Your task to perform on an android device: stop showing notifications on the lock screen Image 0: 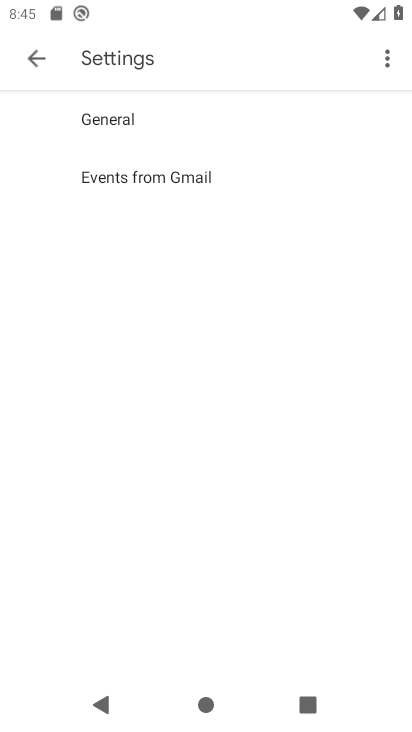
Step 0: press home button
Your task to perform on an android device: stop showing notifications on the lock screen Image 1: 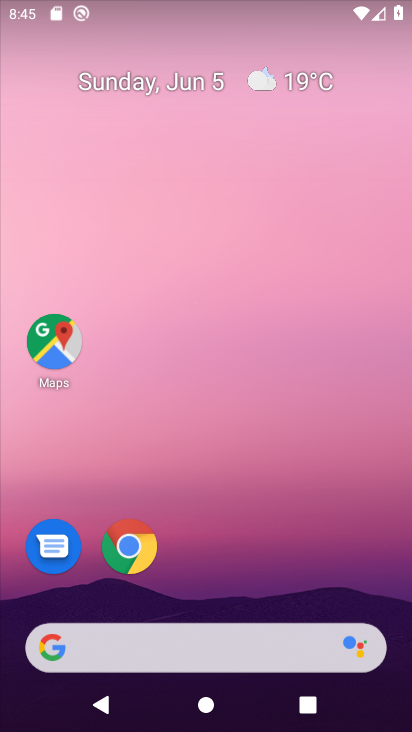
Step 1: drag from (212, 564) to (320, 18)
Your task to perform on an android device: stop showing notifications on the lock screen Image 2: 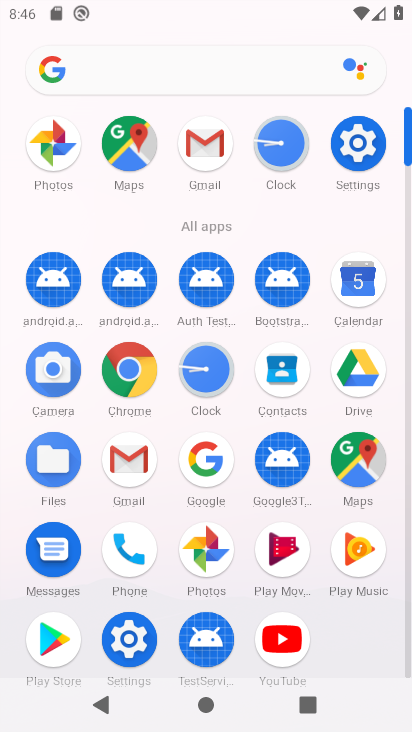
Step 2: click (120, 629)
Your task to perform on an android device: stop showing notifications on the lock screen Image 3: 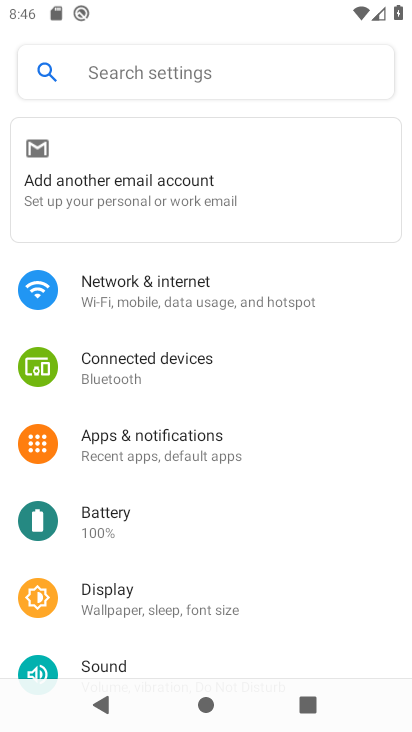
Step 3: click (197, 449)
Your task to perform on an android device: stop showing notifications on the lock screen Image 4: 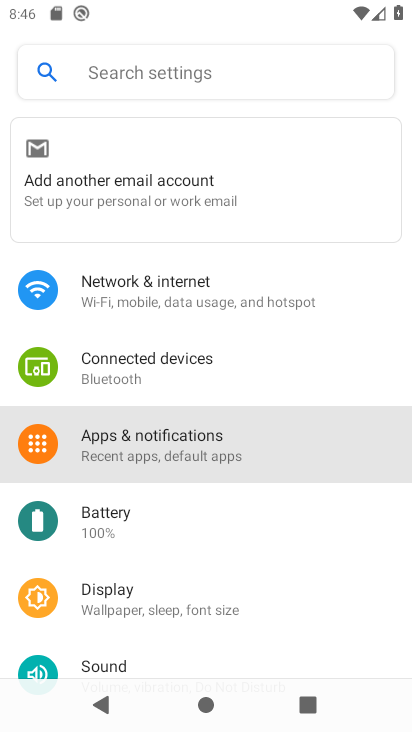
Step 4: click (197, 449)
Your task to perform on an android device: stop showing notifications on the lock screen Image 5: 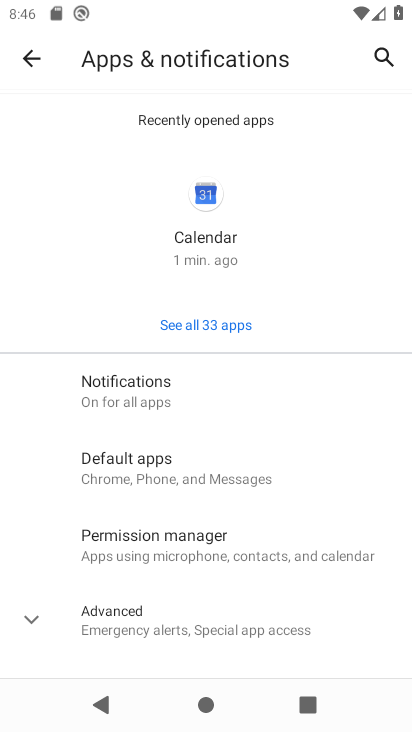
Step 5: click (181, 386)
Your task to perform on an android device: stop showing notifications on the lock screen Image 6: 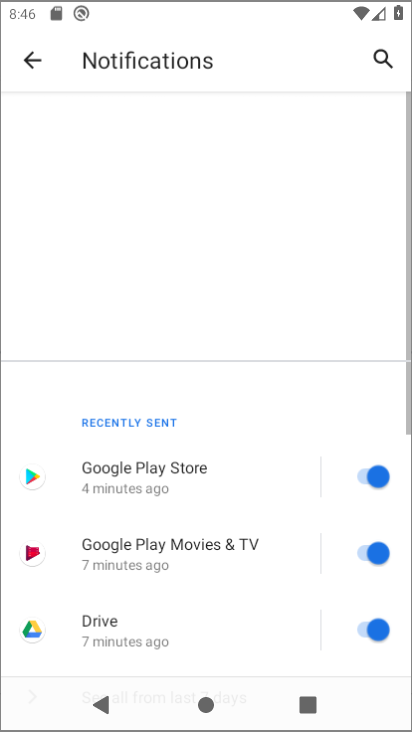
Step 6: drag from (216, 608) to (232, 108)
Your task to perform on an android device: stop showing notifications on the lock screen Image 7: 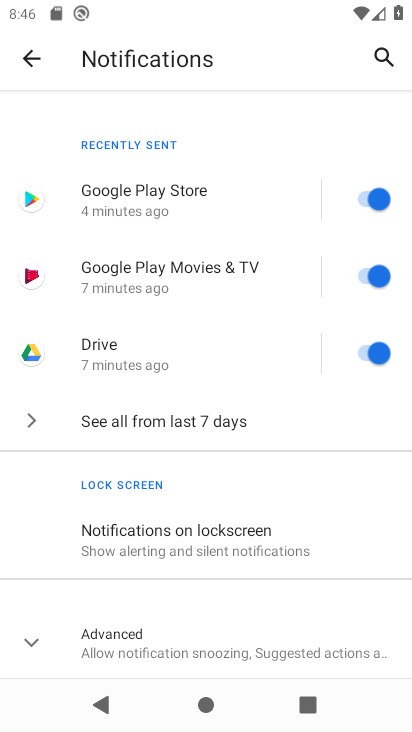
Step 7: drag from (216, 645) to (232, 509)
Your task to perform on an android device: stop showing notifications on the lock screen Image 8: 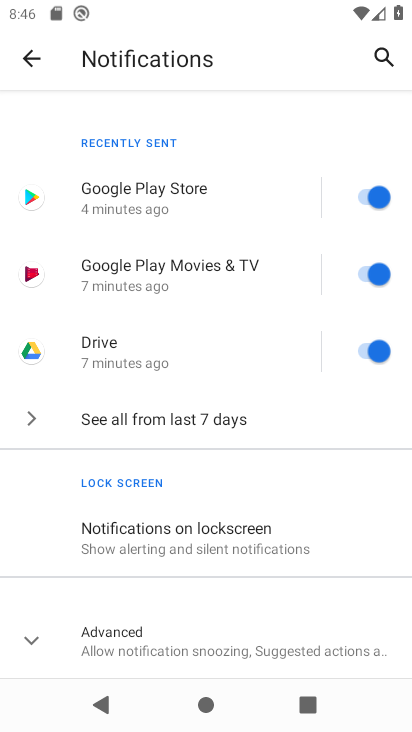
Step 8: click (224, 532)
Your task to perform on an android device: stop showing notifications on the lock screen Image 9: 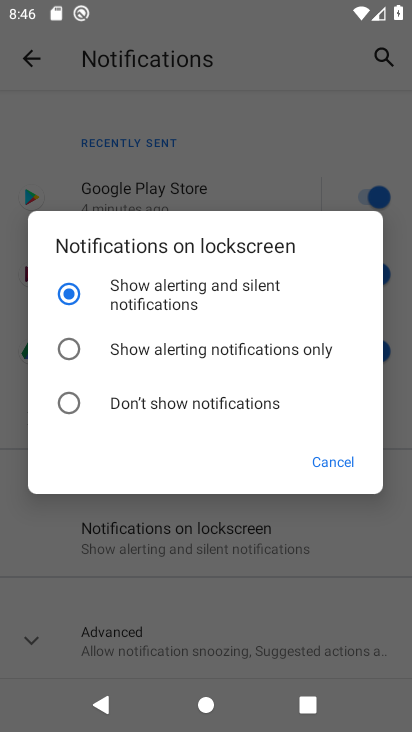
Step 9: click (261, 399)
Your task to perform on an android device: stop showing notifications on the lock screen Image 10: 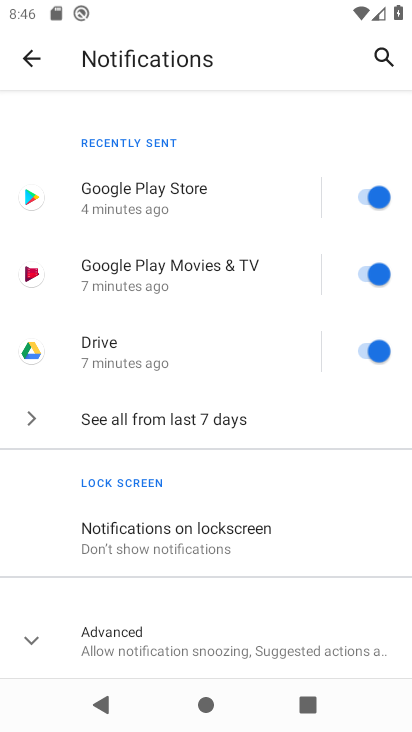
Step 10: task complete